Your task to perform on an android device: open a new tab in the chrome app Image 0: 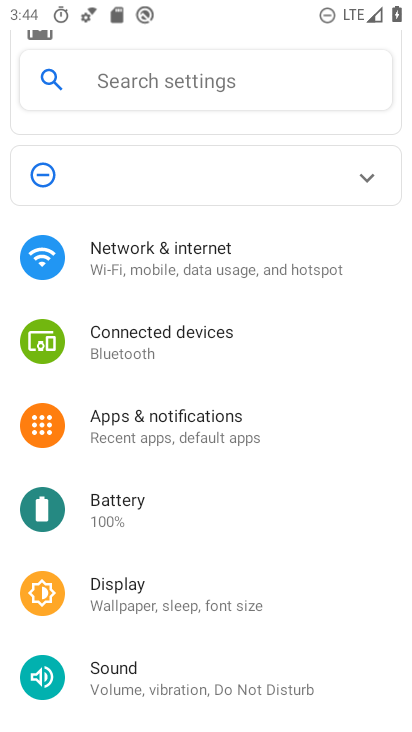
Step 0: press home button
Your task to perform on an android device: open a new tab in the chrome app Image 1: 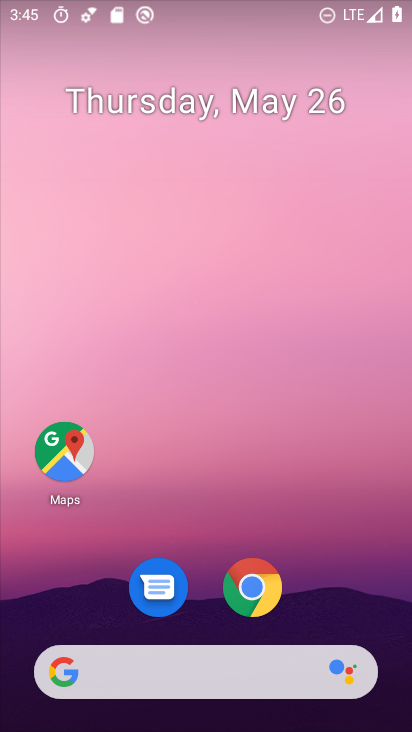
Step 1: click (250, 591)
Your task to perform on an android device: open a new tab in the chrome app Image 2: 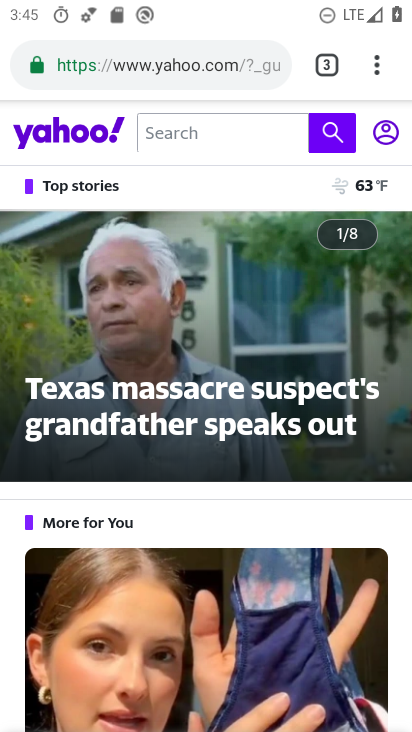
Step 2: task complete